Your task to perform on an android device: Open internet settings Image 0: 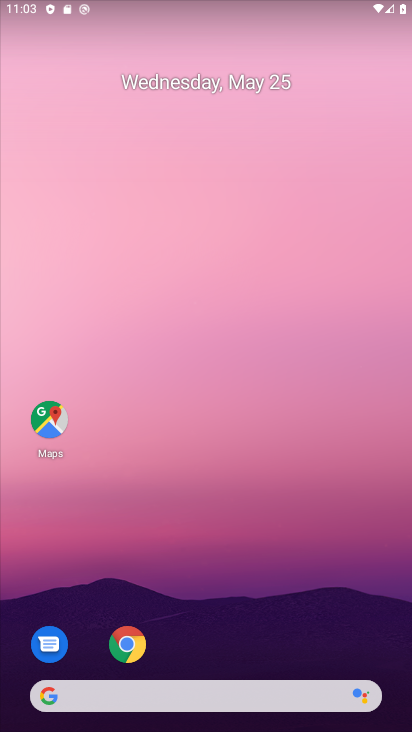
Step 0: drag from (267, 620) to (256, 186)
Your task to perform on an android device: Open internet settings Image 1: 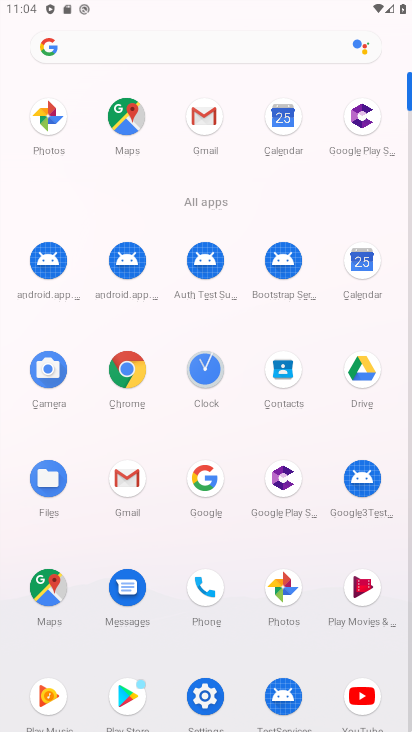
Step 1: click (206, 694)
Your task to perform on an android device: Open internet settings Image 2: 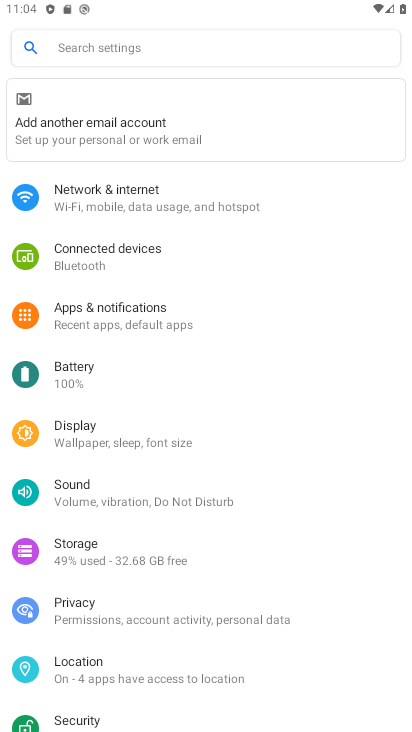
Step 2: click (118, 197)
Your task to perform on an android device: Open internet settings Image 3: 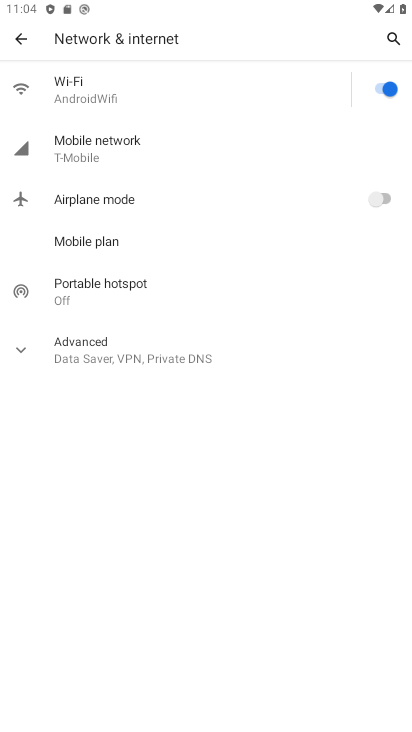
Step 3: click (100, 106)
Your task to perform on an android device: Open internet settings Image 4: 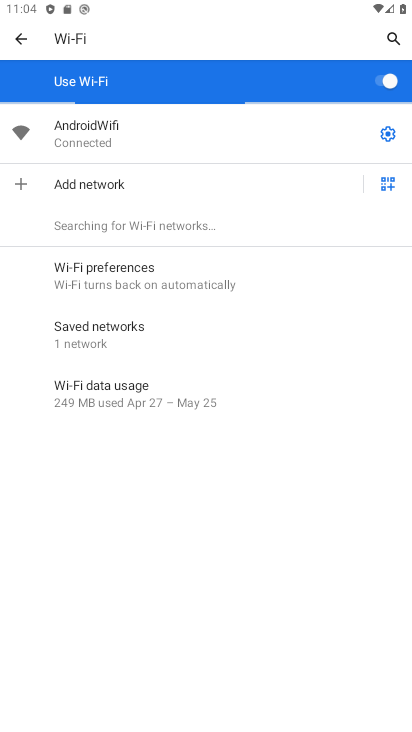
Step 4: task complete